Your task to perform on an android device: Open calendar and show me the third week of next month Image 0: 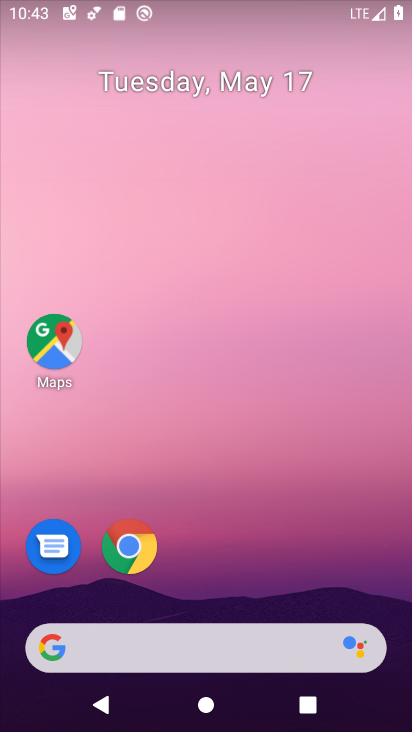
Step 0: drag from (216, 551) to (266, 80)
Your task to perform on an android device: Open calendar and show me the third week of next month Image 1: 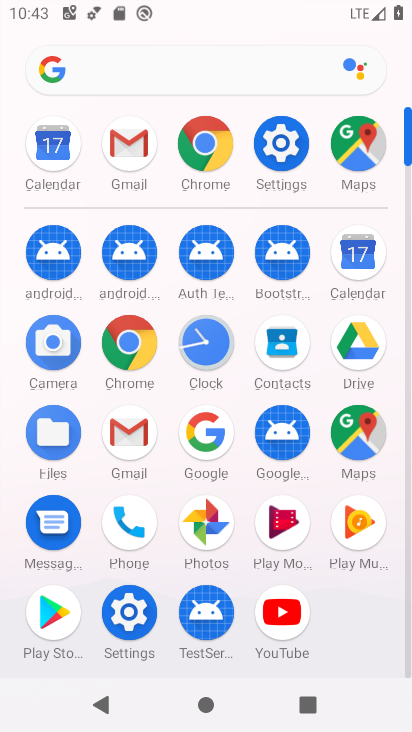
Step 1: click (362, 276)
Your task to perform on an android device: Open calendar and show me the third week of next month Image 2: 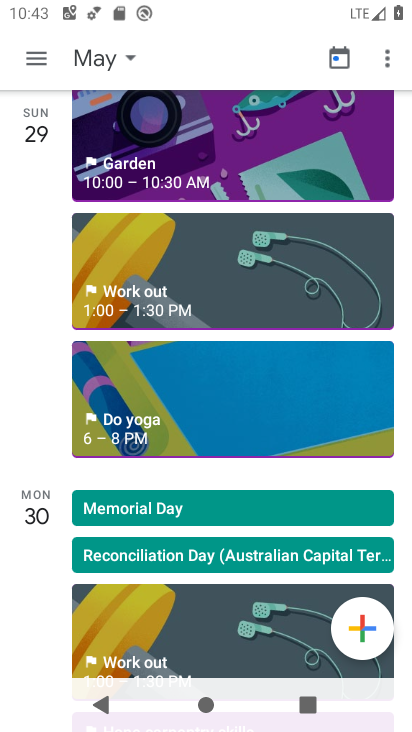
Step 2: click (37, 51)
Your task to perform on an android device: Open calendar and show me the third week of next month Image 3: 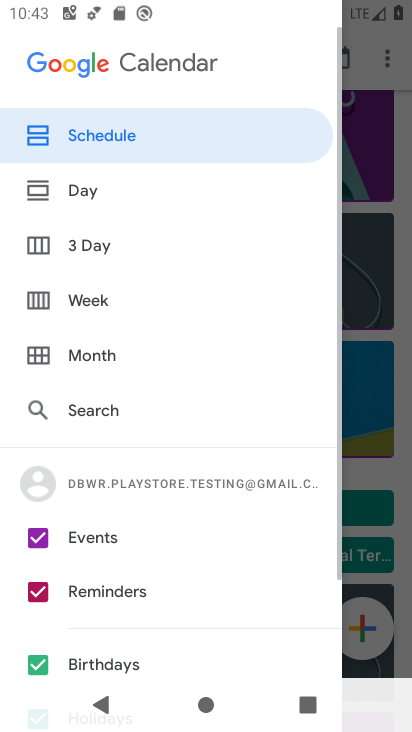
Step 3: click (103, 296)
Your task to perform on an android device: Open calendar and show me the third week of next month Image 4: 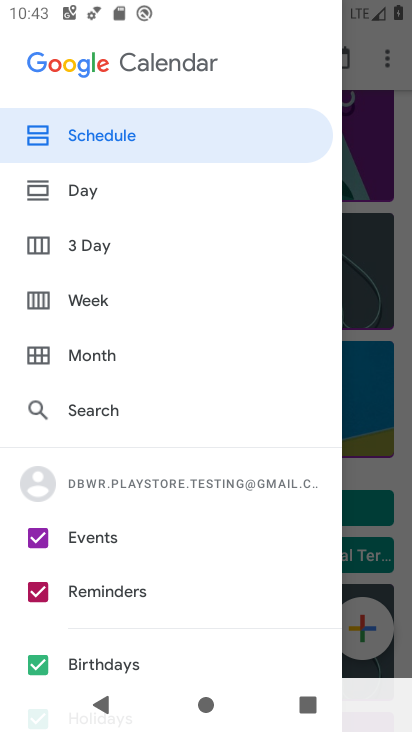
Step 4: click (97, 303)
Your task to perform on an android device: Open calendar and show me the third week of next month Image 5: 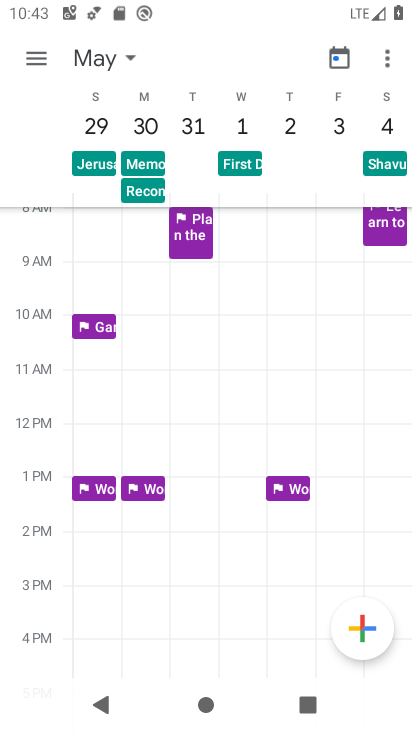
Step 5: task complete